Your task to perform on an android device: Open maps Image 0: 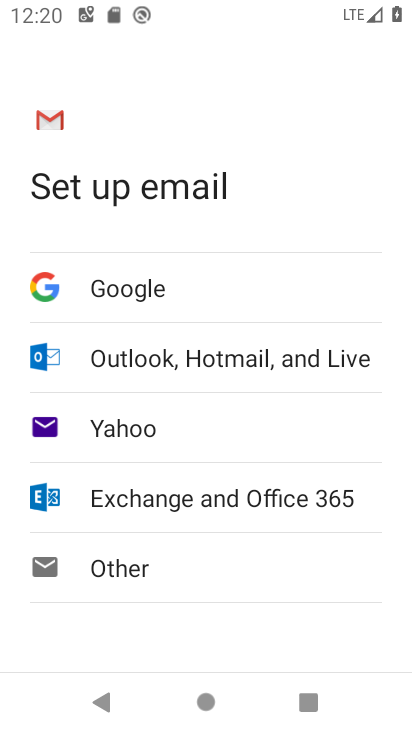
Step 0: press home button
Your task to perform on an android device: Open maps Image 1: 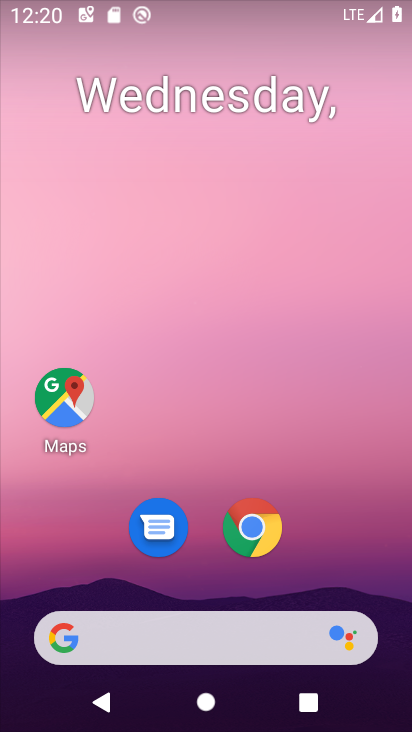
Step 1: drag from (303, 654) to (338, 139)
Your task to perform on an android device: Open maps Image 2: 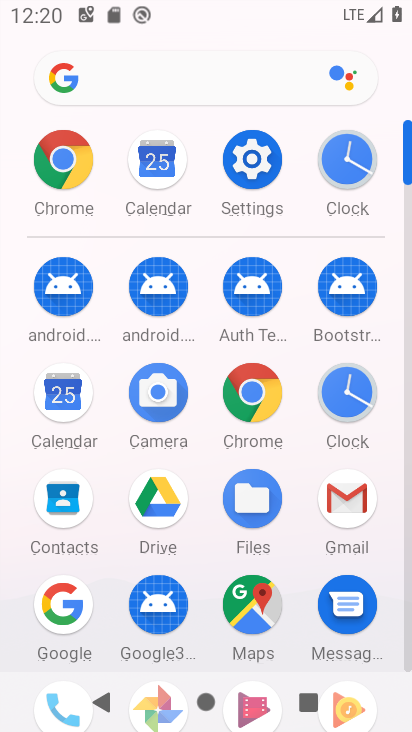
Step 2: click (263, 627)
Your task to perform on an android device: Open maps Image 3: 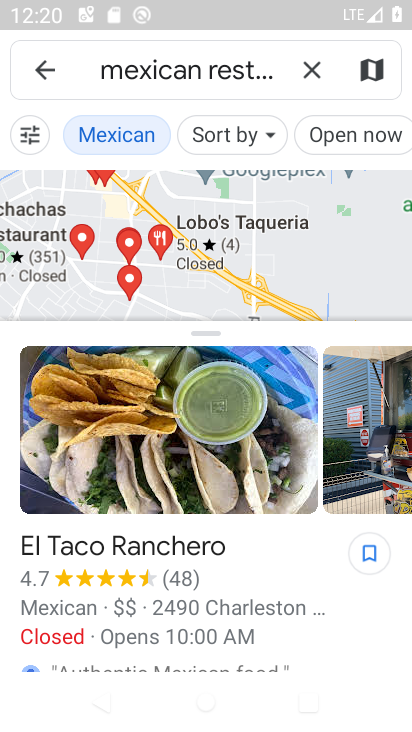
Step 3: task complete